Your task to perform on an android device: toggle improve location accuracy Image 0: 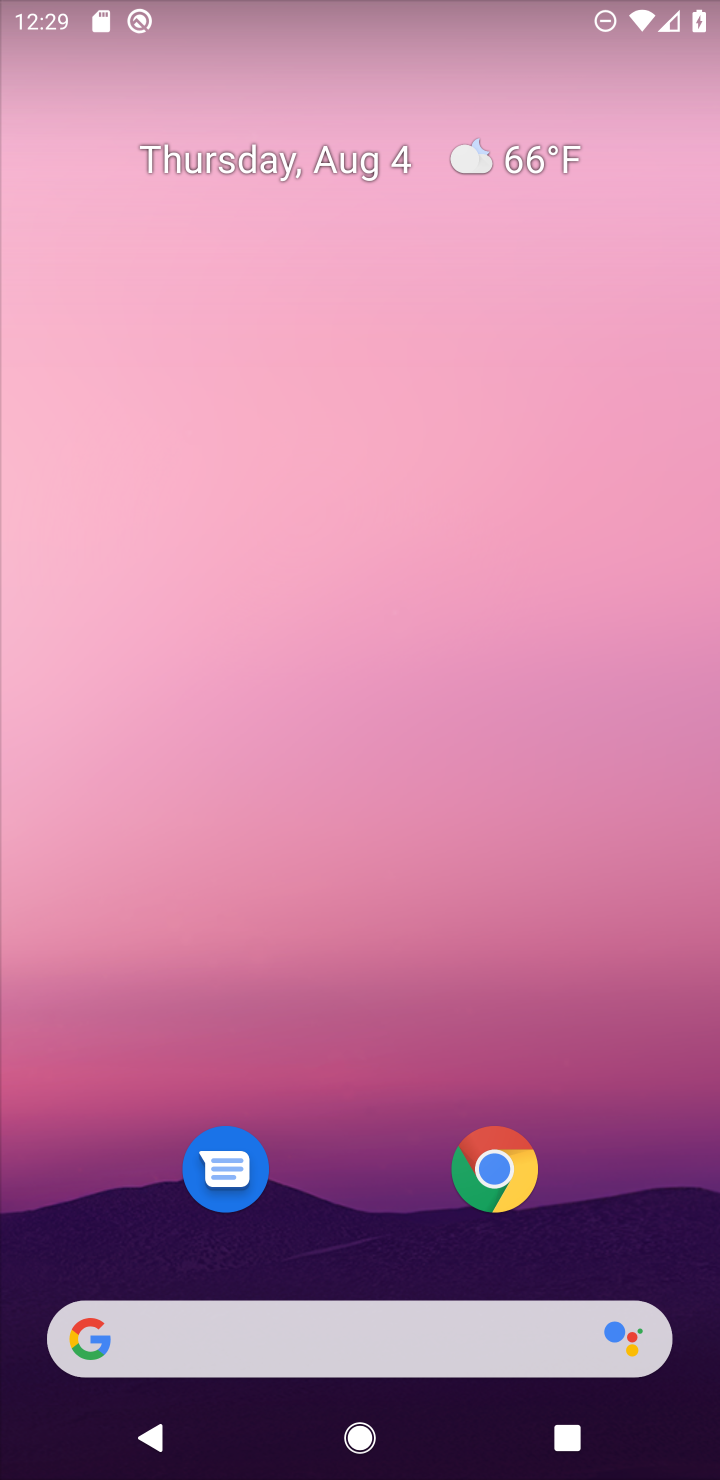
Step 0: drag from (374, 1017) to (371, 24)
Your task to perform on an android device: toggle improve location accuracy Image 1: 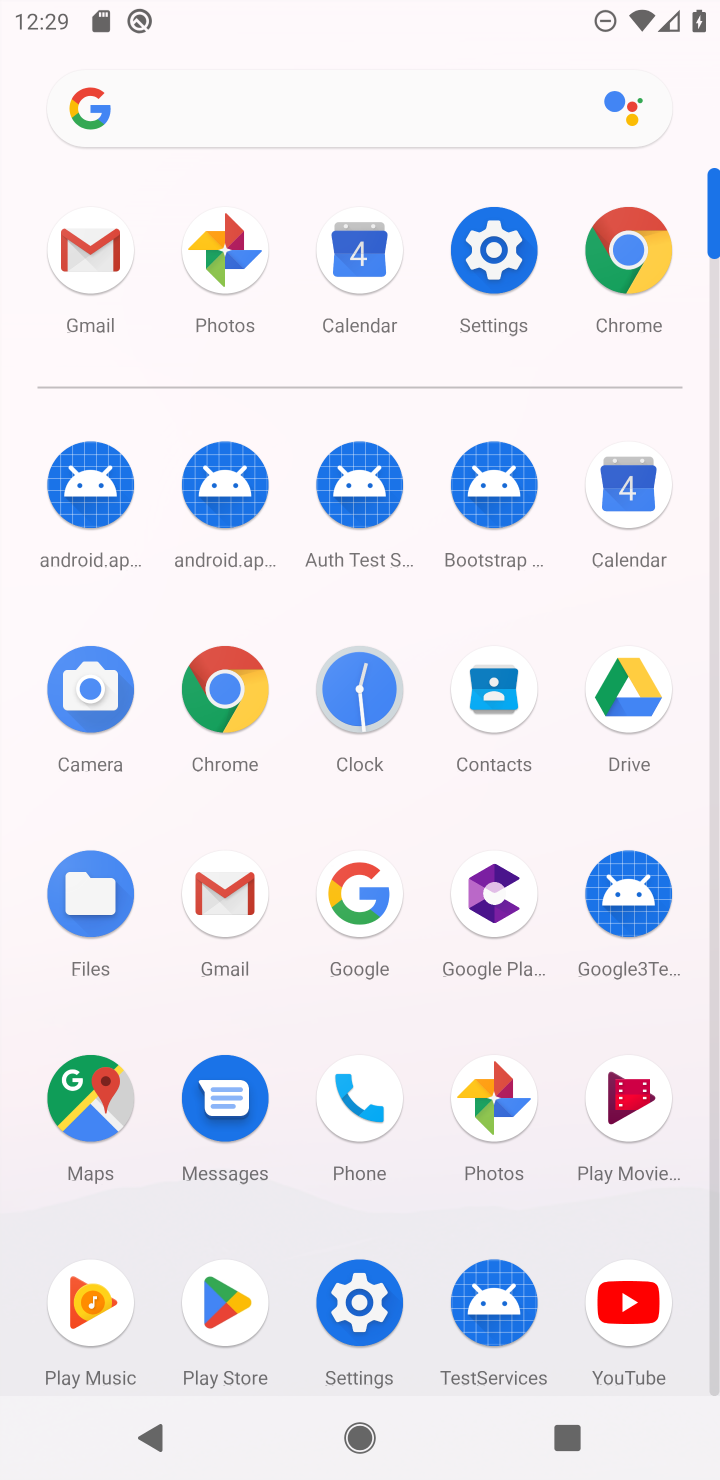
Step 1: click (497, 261)
Your task to perform on an android device: toggle improve location accuracy Image 2: 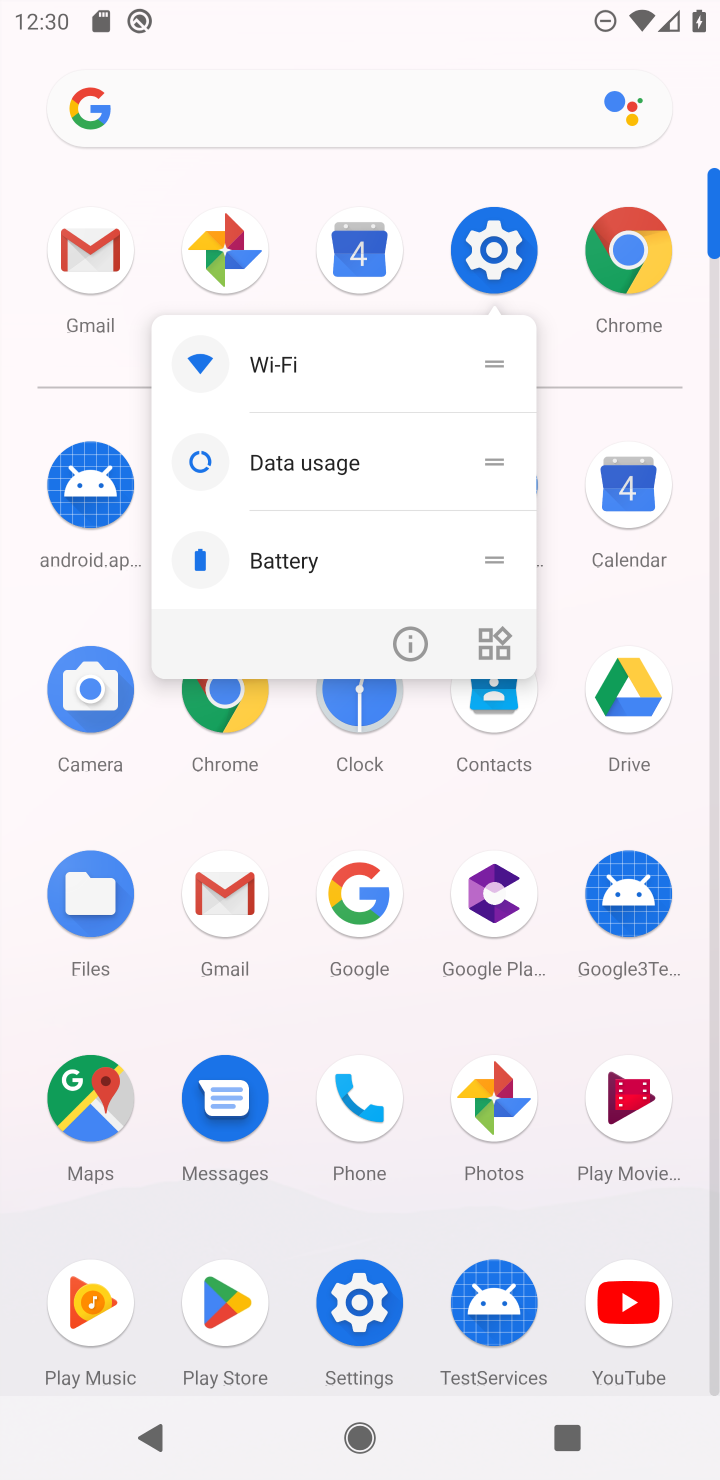
Step 2: click (497, 261)
Your task to perform on an android device: toggle improve location accuracy Image 3: 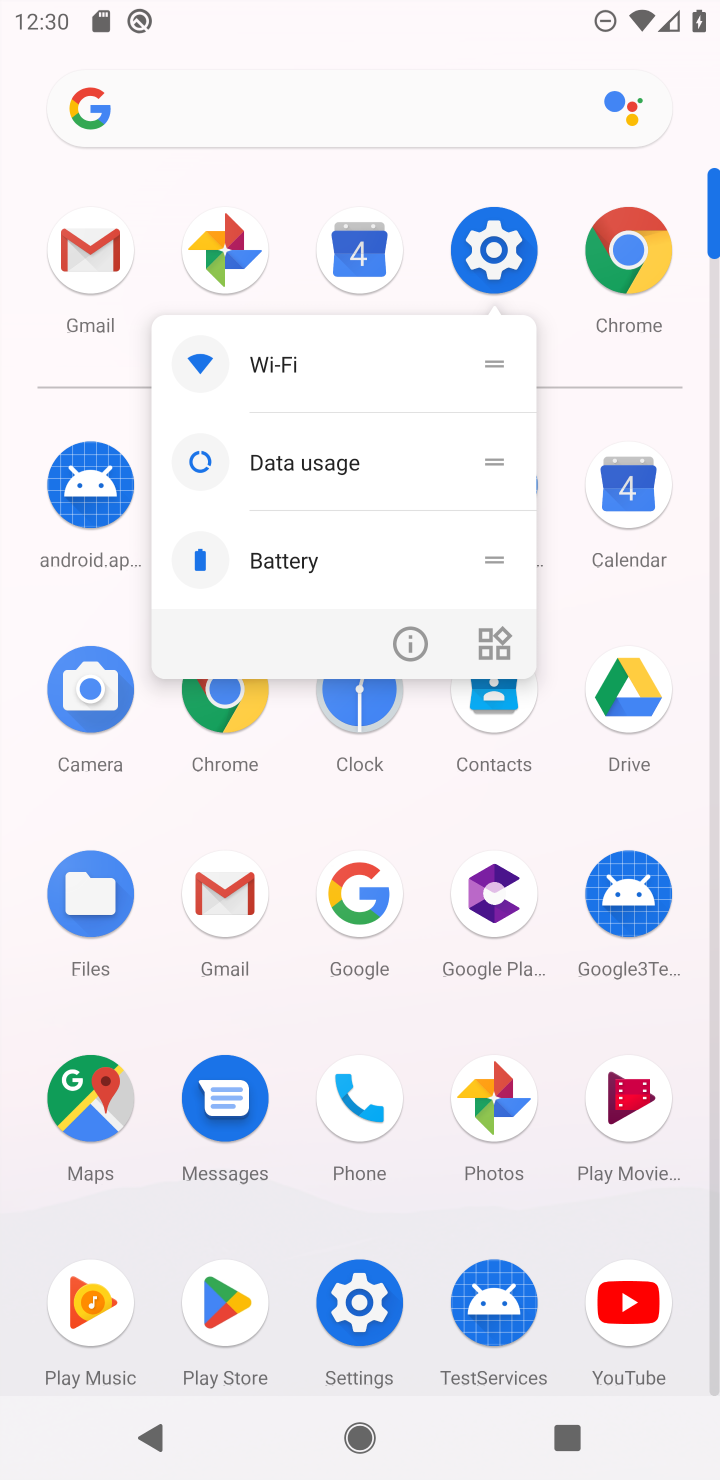
Step 3: click (497, 261)
Your task to perform on an android device: toggle improve location accuracy Image 4: 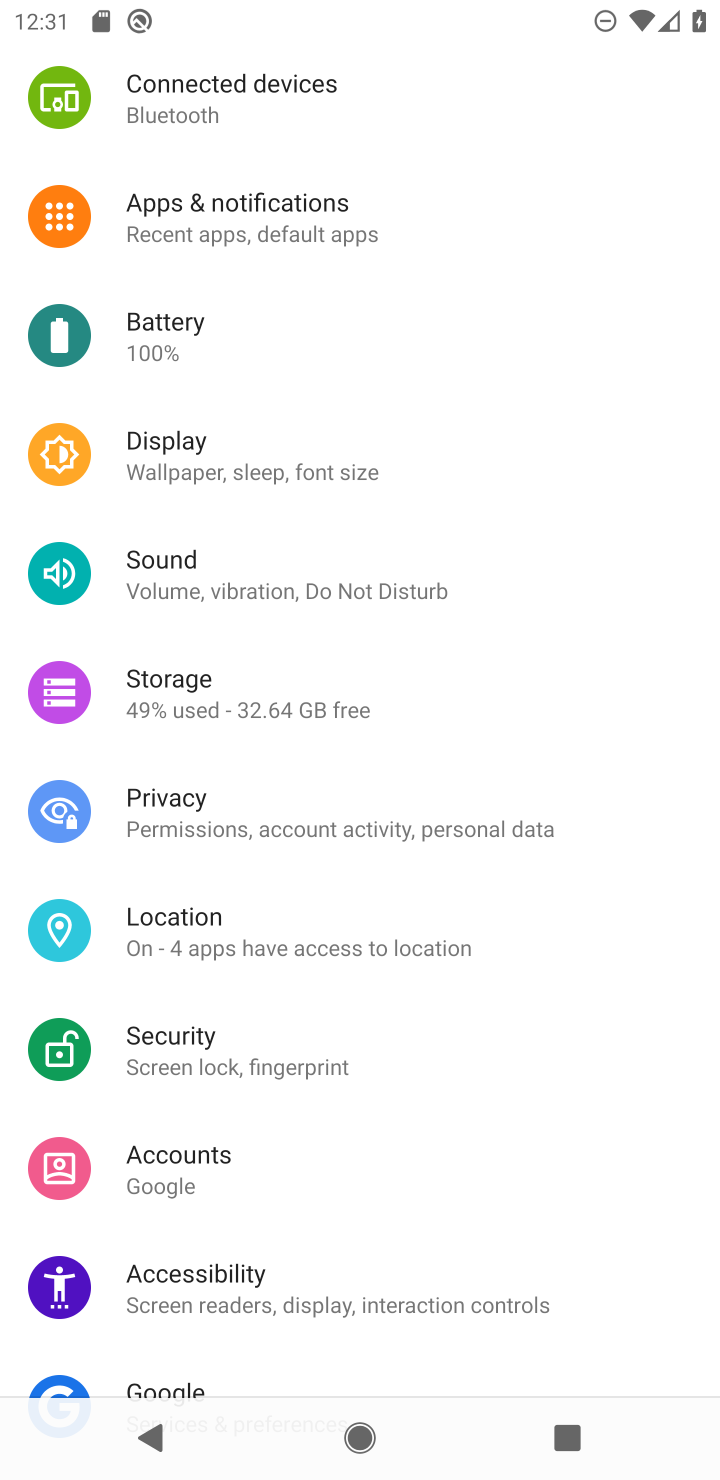
Step 4: click (204, 940)
Your task to perform on an android device: toggle improve location accuracy Image 5: 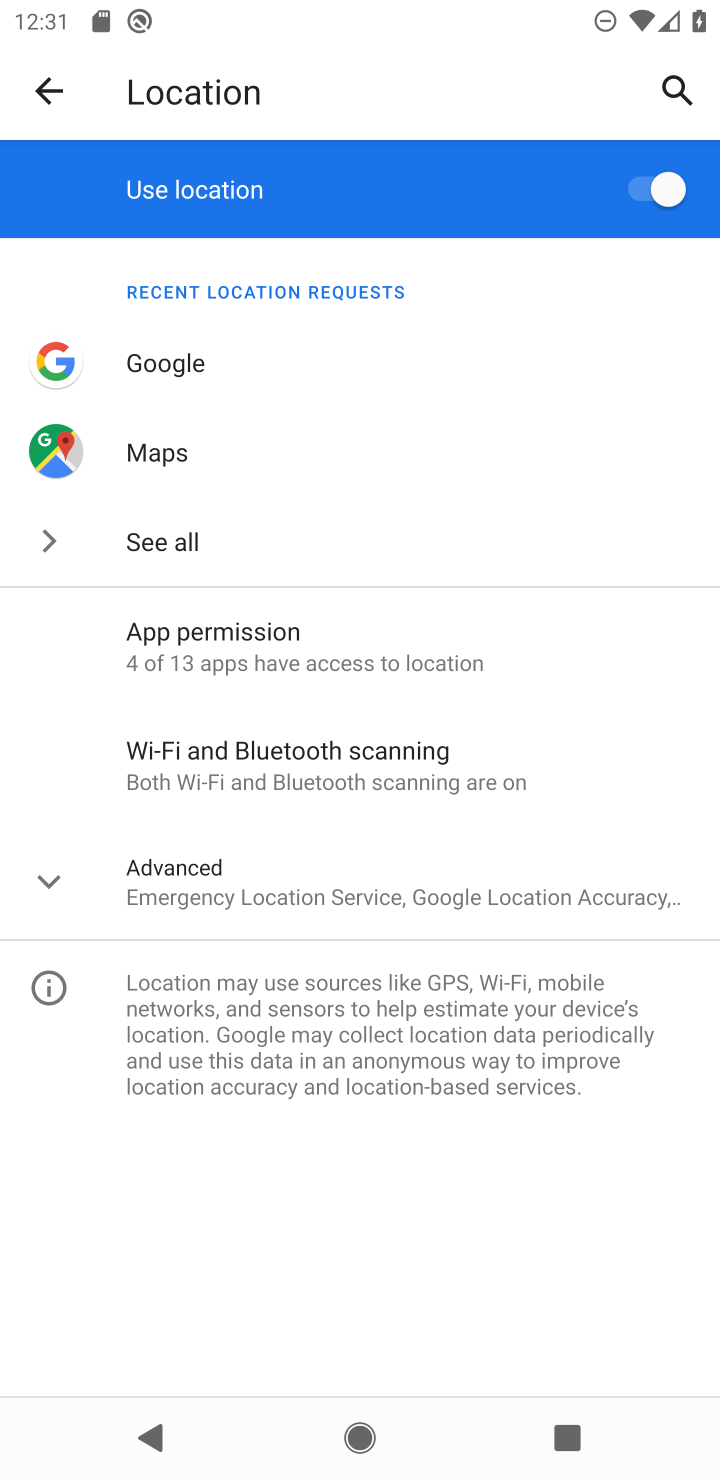
Step 5: click (51, 898)
Your task to perform on an android device: toggle improve location accuracy Image 6: 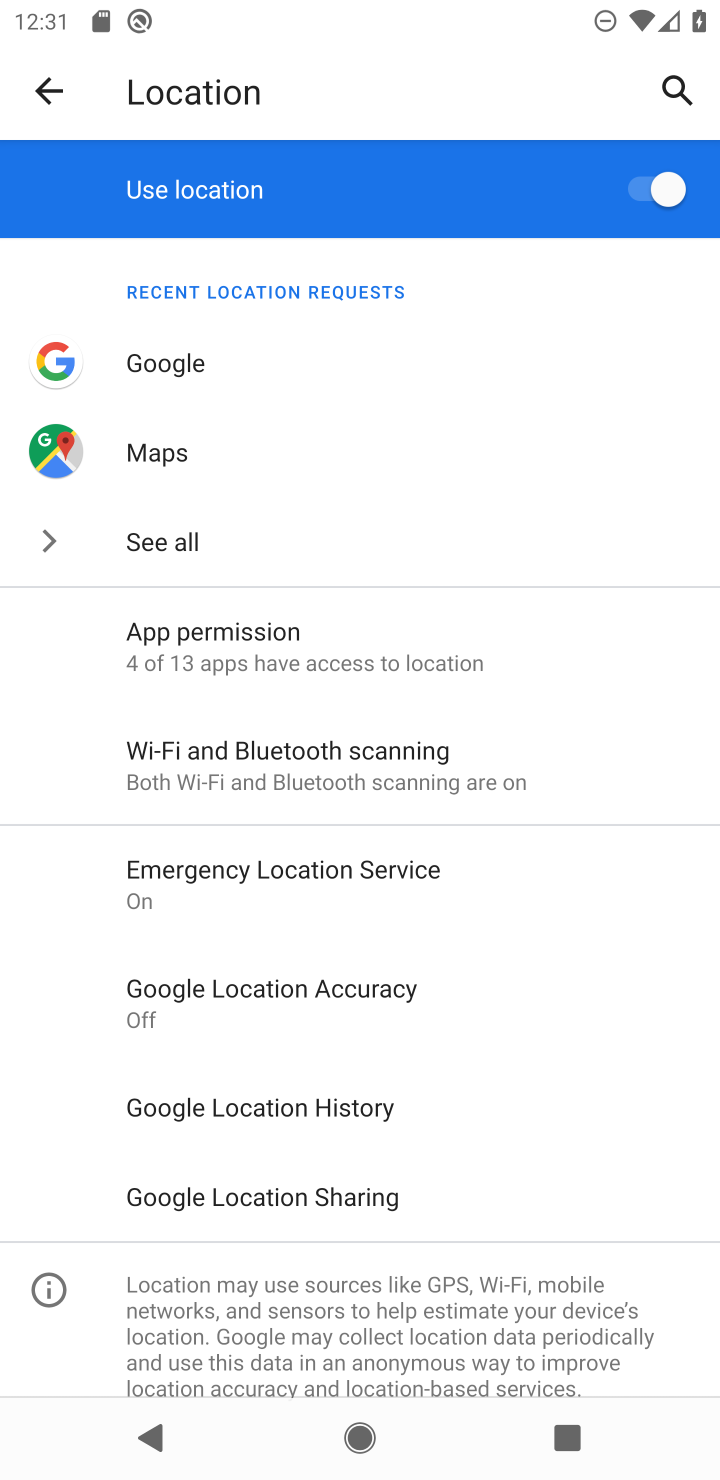
Step 6: click (316, 1001)
Your task to perform on an android device: toggle improve location accuracy Image 7: 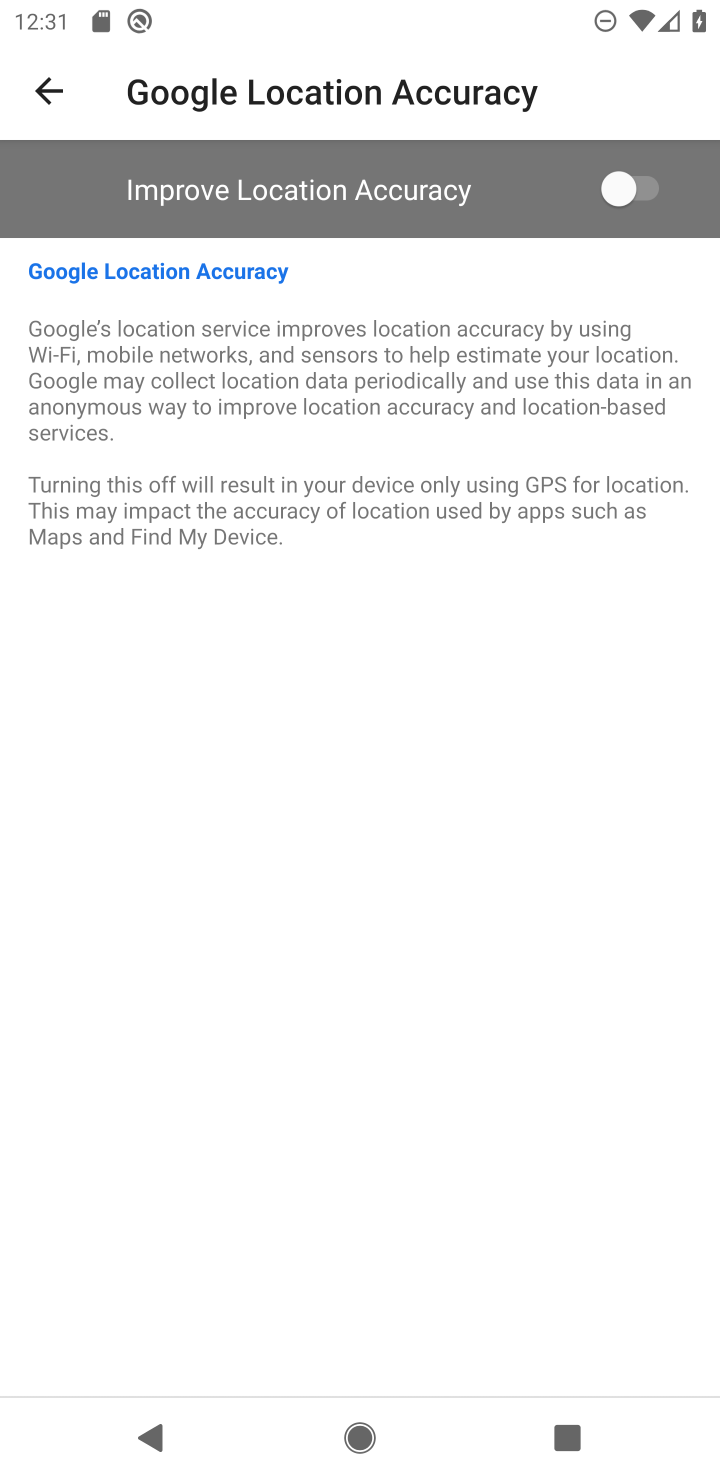
Step 7: click (627, 199)
Your task to perform on an android device: toggle improve location accuracy Image 8: 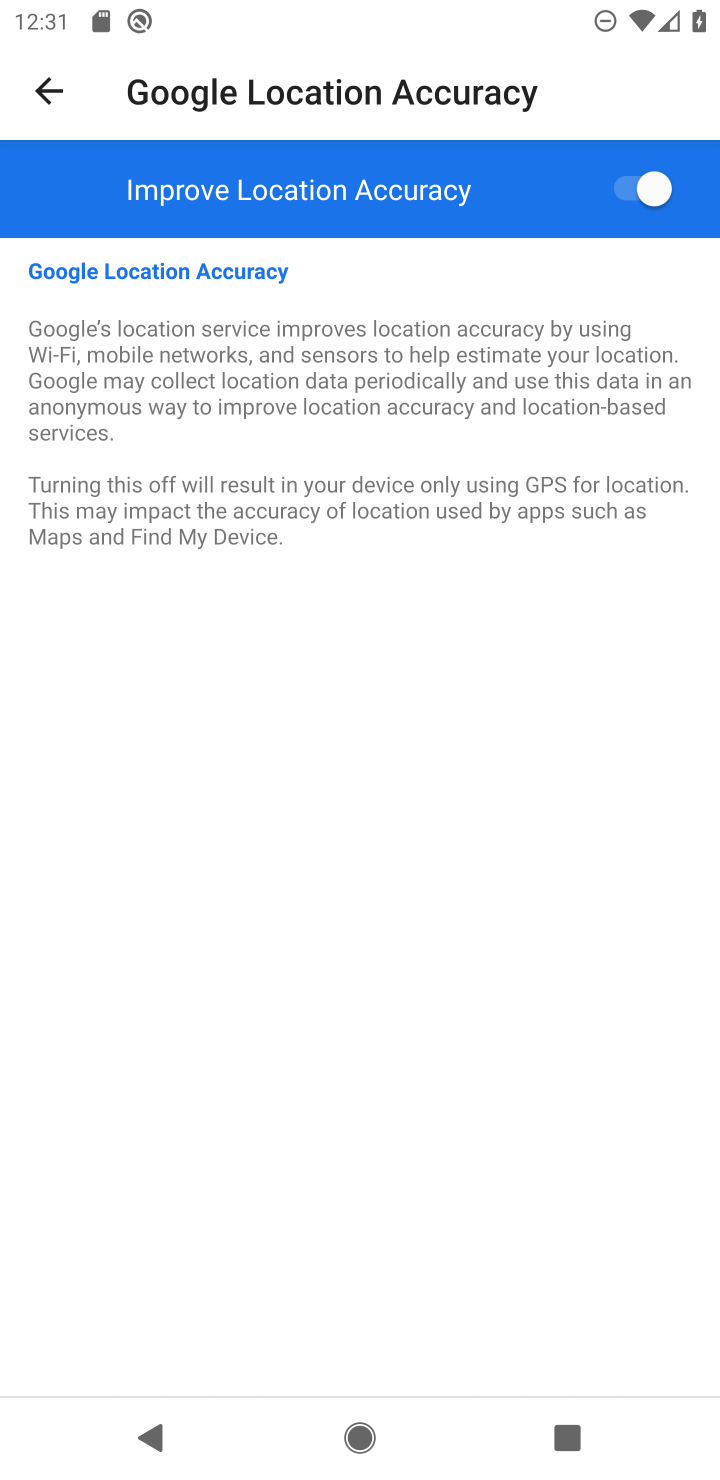
Step 8: task complete